Your task to perform on an android device: change notifications settings Image 0: 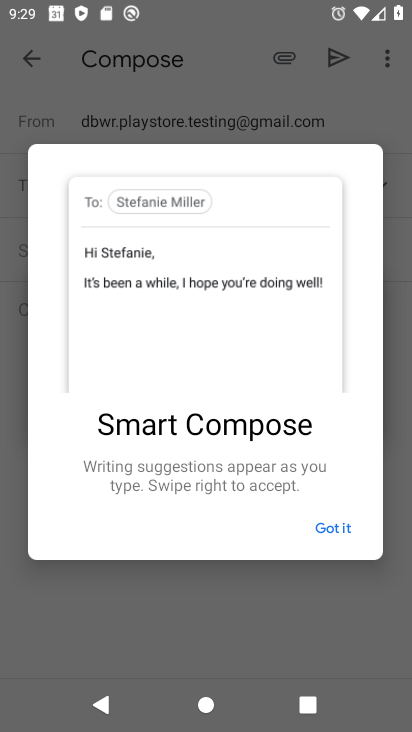
Step 0: press home button
Your task to perform on an android device: change notifications settings Image 1: 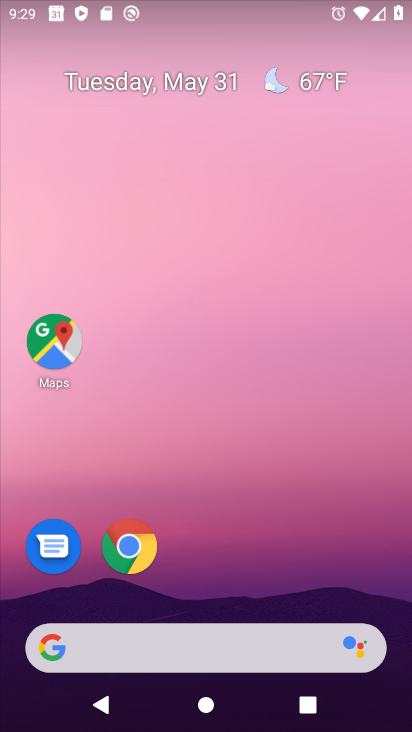
Step 1: drag from (206, 591) to (281, 65)
Your task to perform on an android device: change notifications settings Image 2: 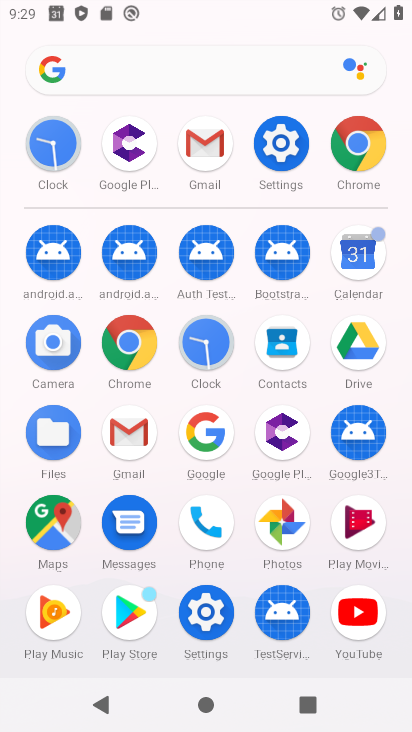
Step 2: click (281, 161)
Your task to perform on an android device: change notifications settings Image 3: 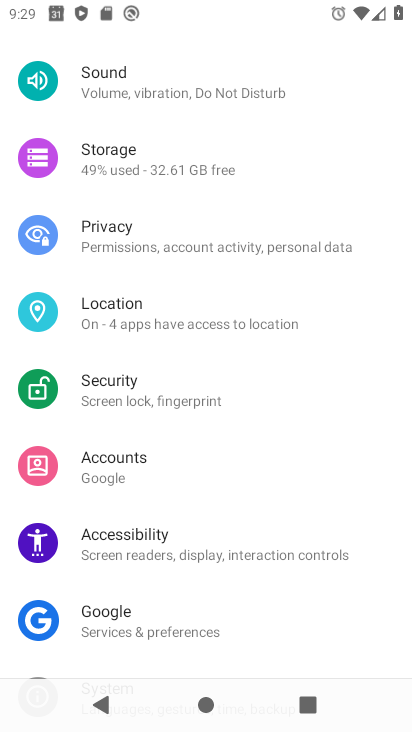
Step 3: drag from (173, 234) to (165, 582)
Your task to perform on an android device: change notifications settings Image 4: 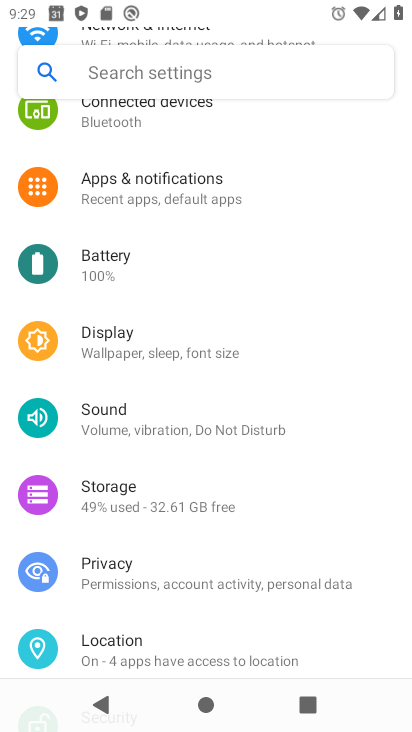
Step 4: click (163, 188)
Your task to perform on an android device: change notifications settings Image 5: 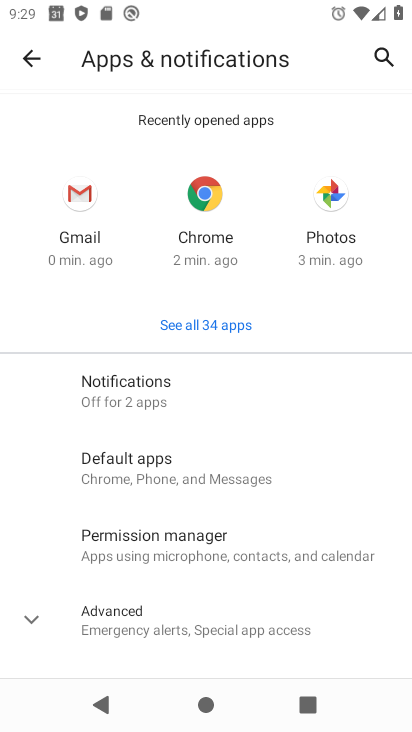
Step 5: click (160, 401)
Your task to perform on an android device: change notifications settings Image 6: 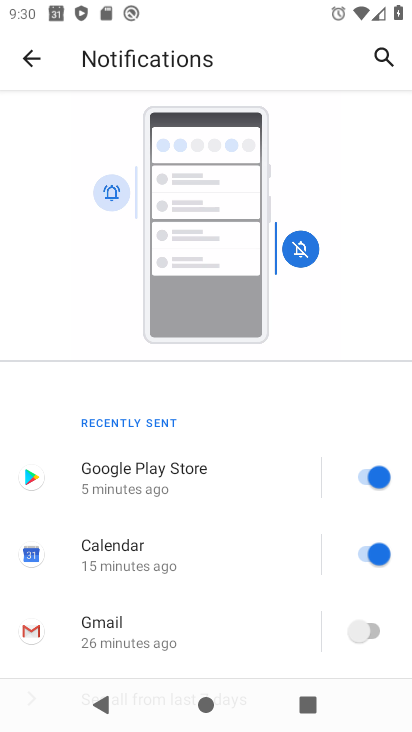
Step 6: drag from (131, 563) to (130, 461)
Your task to perform on an android device: change notifications settings Image 7: 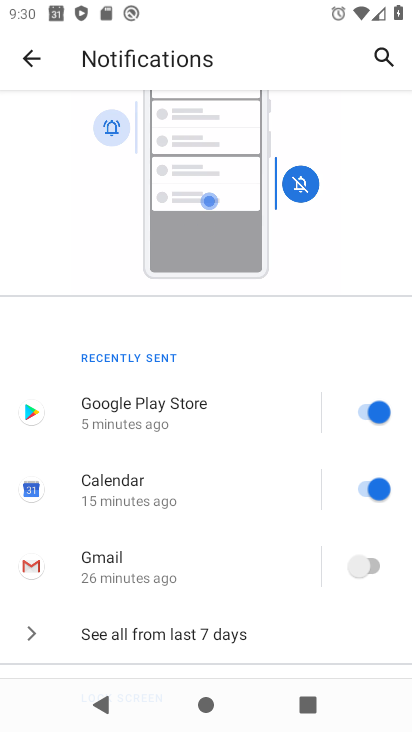
Step 7: click (132, 637)
Your task to perform on an android device: change notifications settings Image 8: 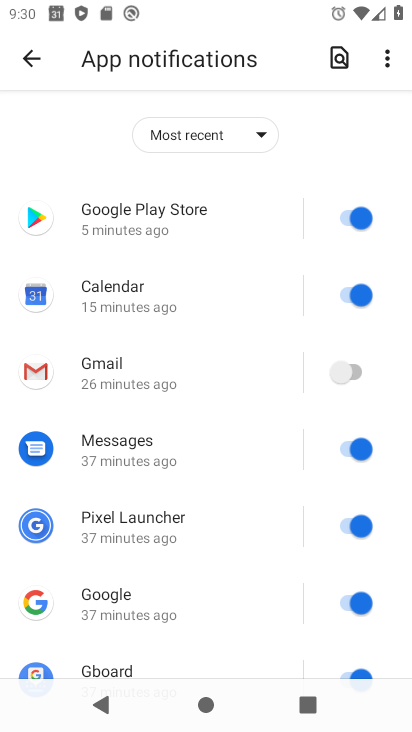
Step 8: click (341, 224)
Your task to perform on an android device: change notifications settings Image 9: 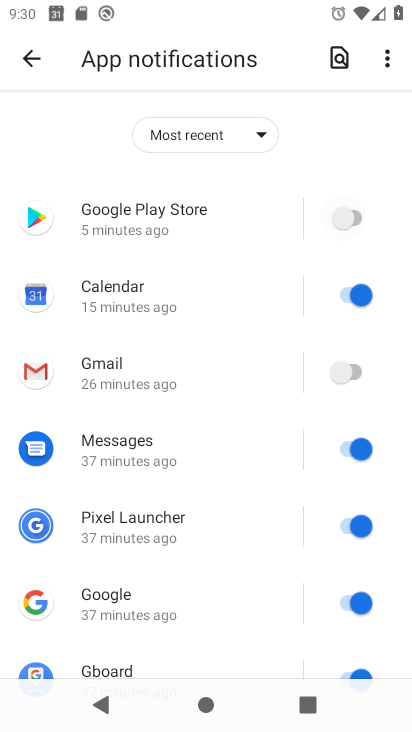
Step 9: click (344, 293)
Your task to perform on an android device: change notifications settings Image 10: 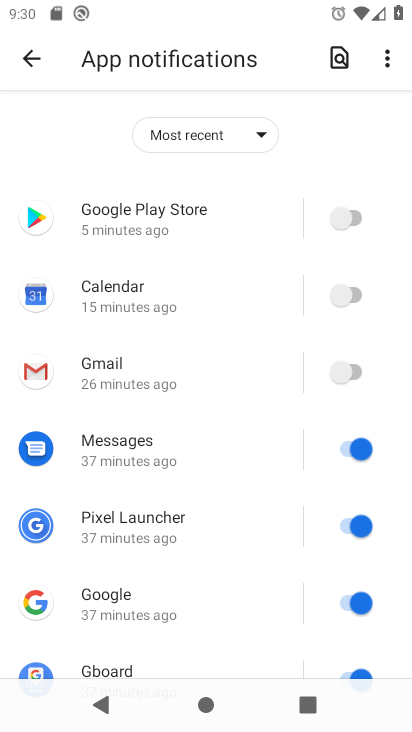
Step 10: click (339, 458)
Your task to perform on an android device: change notifications settings Image 11: 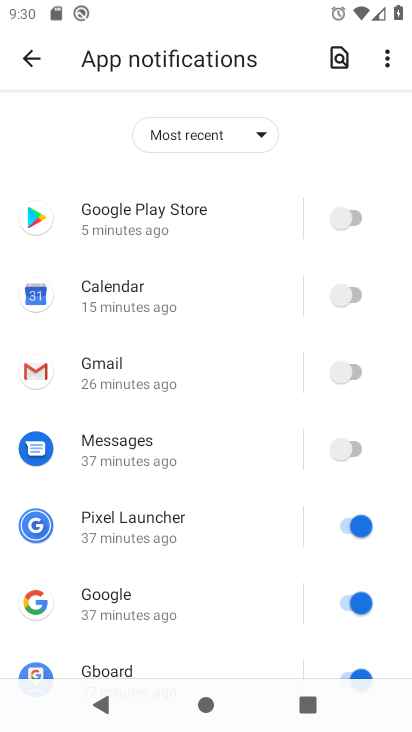
Step 11: click (333, 529)
Your task to perform on an android device: change notifications settings Image 12: 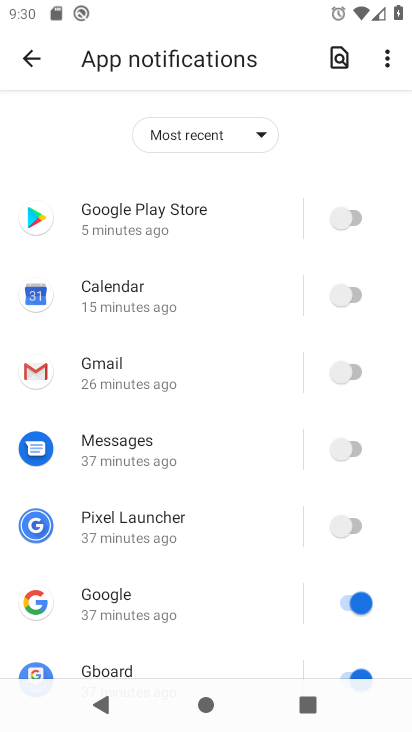
Step 12: click (339, 620)
Your task to perform on an android device: change notifications settings Image 13: 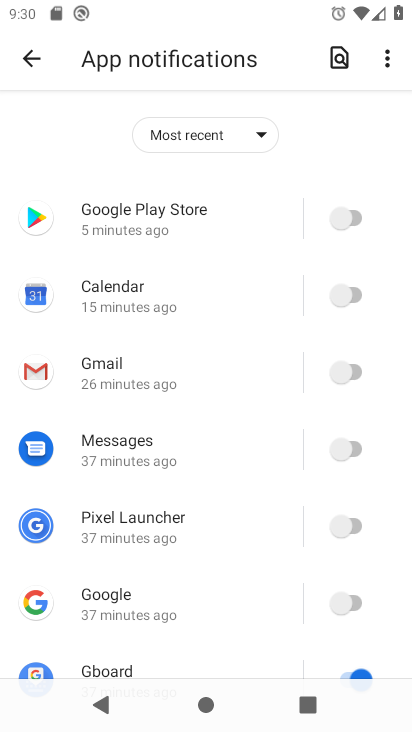
Step 13: drag from (278, 617) to (273, 450)
Your task to perform on an android device: change notifications settings Image 14: 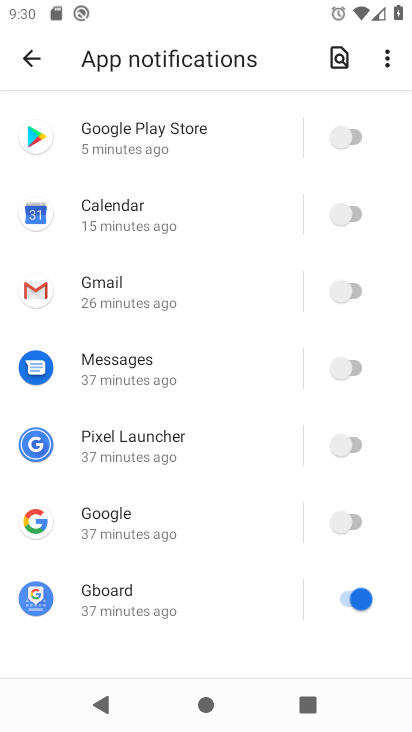
Step 14: click (352, 604)
Your task to perform on an android device: change notifications settings Image 15: 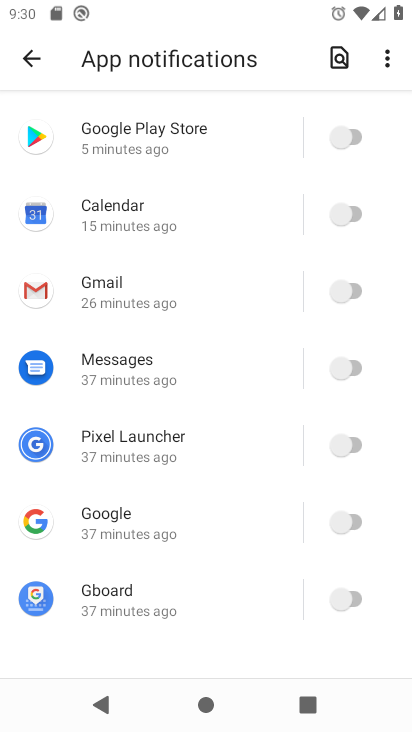
Step 15: task complete